Your task to perform on an android device: set the timer Image 0: 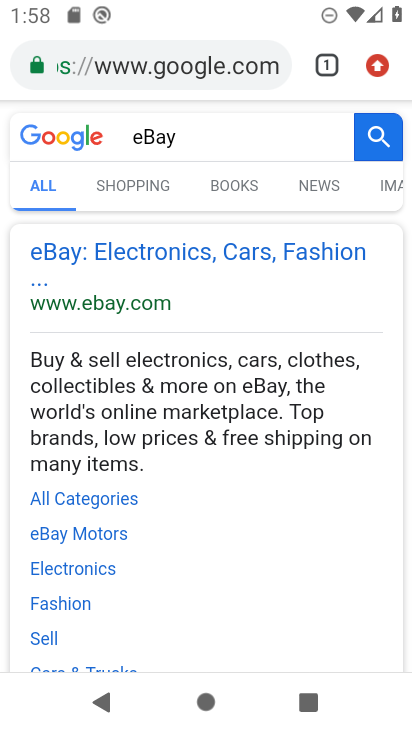
Step 0: press home button
Your task to perform on an android device: set the timer Image 1: 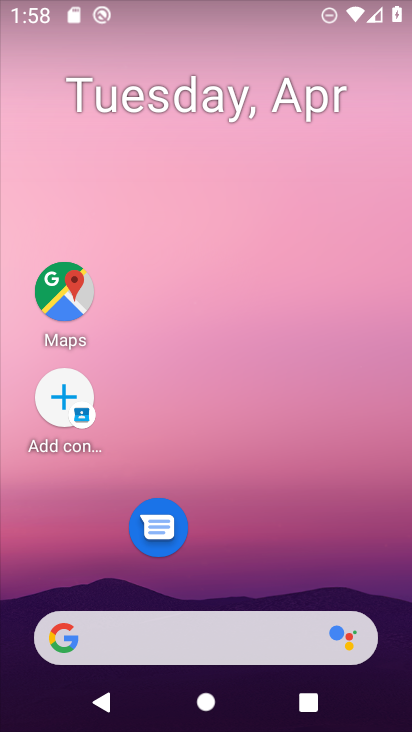
Step 1: drag from (262, 577) to (208, 148)
Your task to perform on an android device: set the timer Image 2: 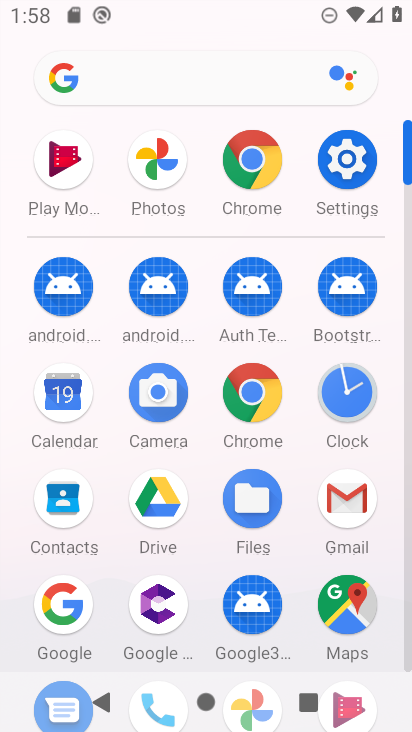
Step 2: click (346, 391)
Your task to perform on an android device: set the timer Image 3: 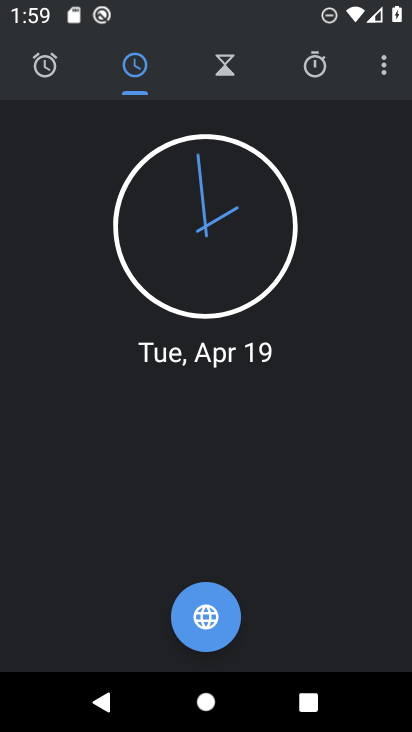
Step 3: click (232, 79)
Your task to perform on an android device: set the timer Image 4: 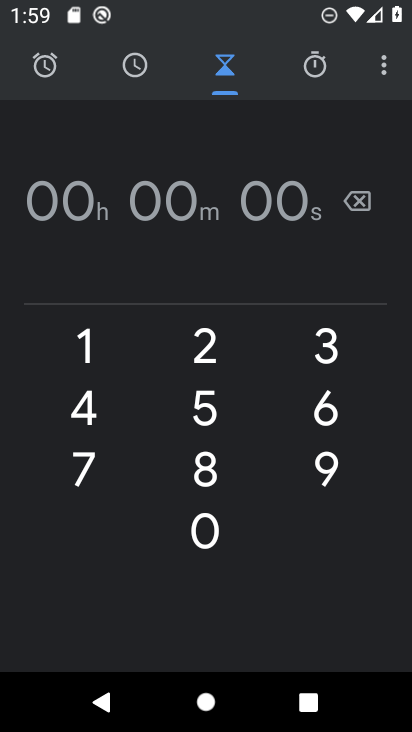
Step 4: type "123"
Your task to perform on an android device: set the timer Image 5: 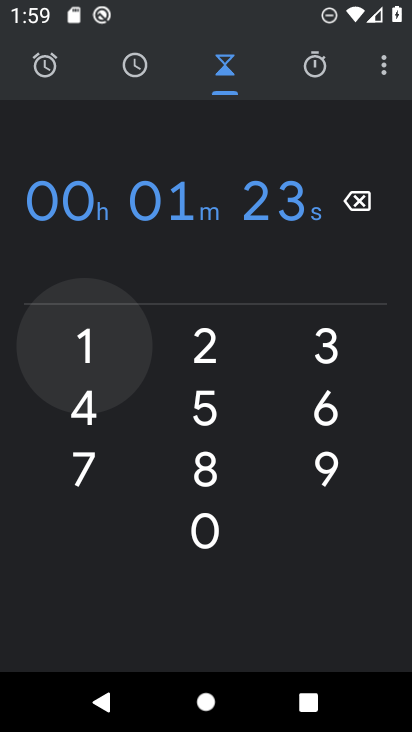
Step 5: type ""
Your task to perform on an android device: set the timer Image 6: 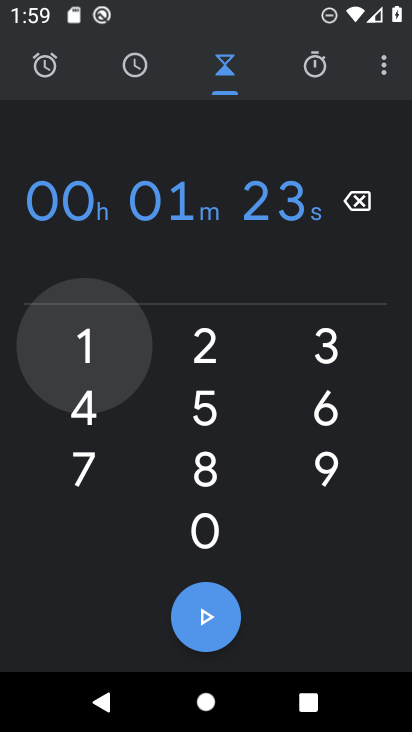
Step 6: click (206, 616)
Your task to perform on an android device: set the timer Image 7: 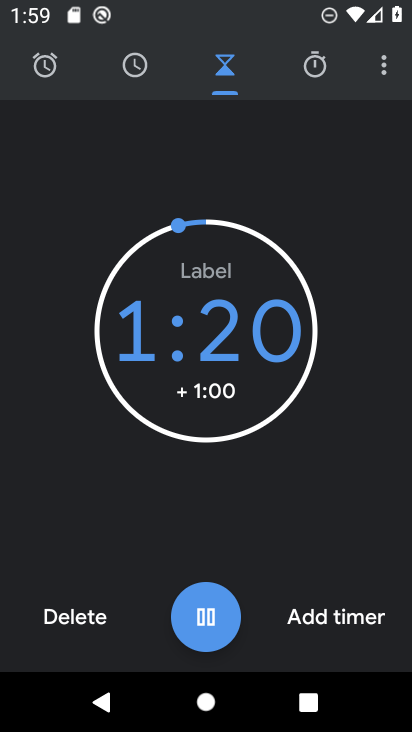
Step 7: click (206, 616)
Your task to perform on an android device: set the timer Image 8: 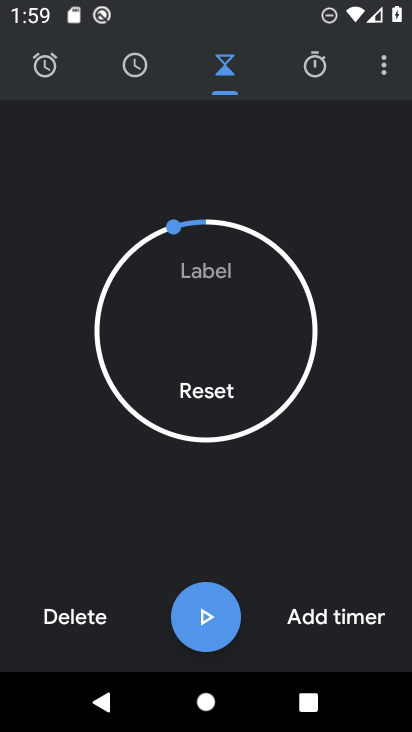
Step 8: task complete